Your task to perform on an android device: install app "Viber Messenger" Image 0: 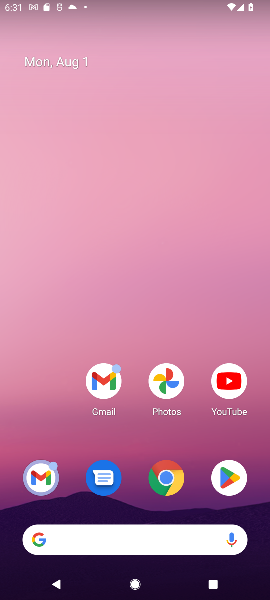
Step 0: press home button
Your task to perform on an android device: install app "Viber Messenger" Image 1: 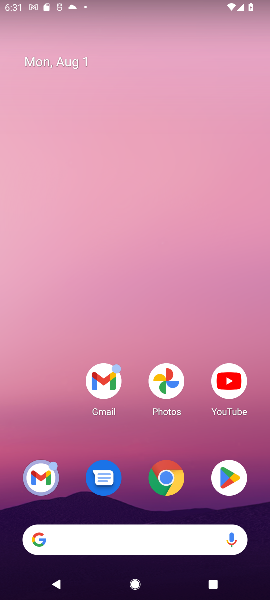
Step 1: click (227, 462)
Your task to perform on an android device: install app "Viber Messenger" Image 2: 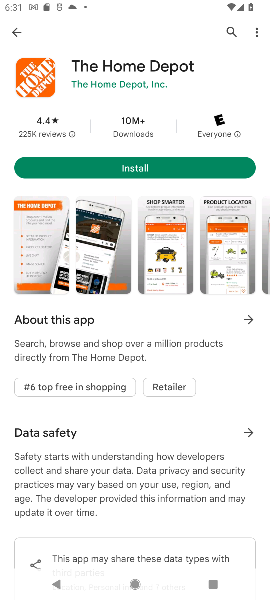
Step 2: click (227, 35)
Your task to perform on an android device: install app "Viber Messenger" Image 3: 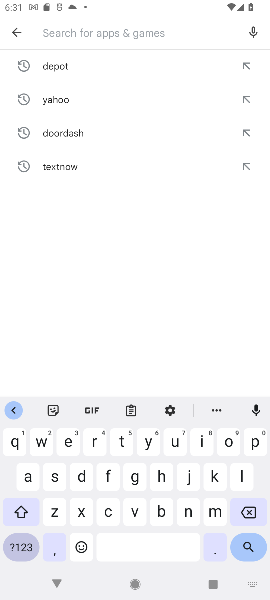
Step 3: click (139, 509)
Your task to perform on an android device: install app "Viber Messenger" Image 4: 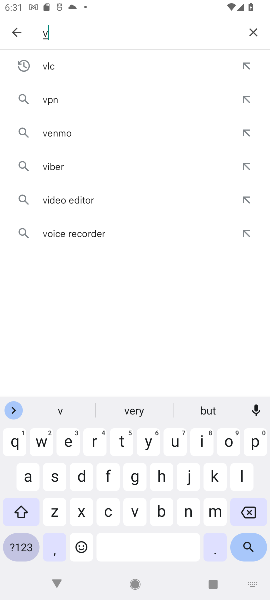
Step 4: click (202, 445)
Your task to perform on an android device: install app "Viber Messenger" Image 5: 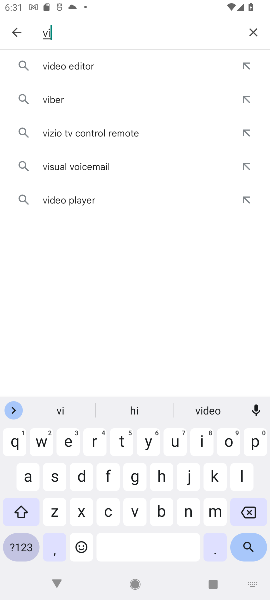
Step 5: click (52, 95)
Your task to perform on an android device: install app "Viber Messenger" Image 6: 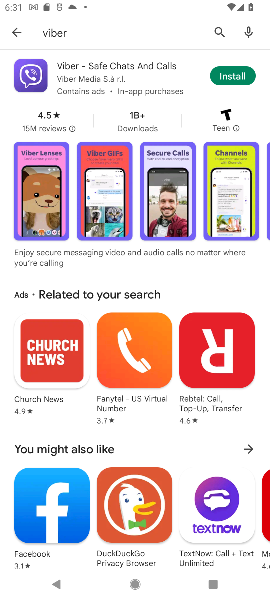
Step 6: click (230, 80)
Your task to perform on an android device: install app "Viber Messenger" Image 7: 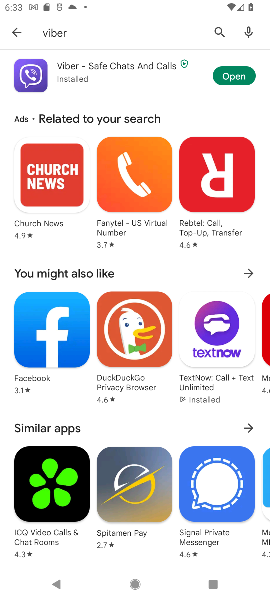
Step 7: task complete